Your task to perform on an android device: Open privacy settings Image 0: 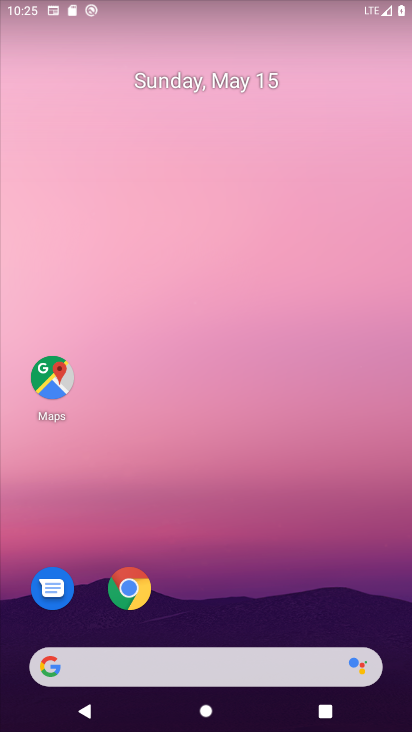
Step 0: drag from (283, 582) to (272, 285)
Your task to perform on an android device: Open privacy settings Image 1: 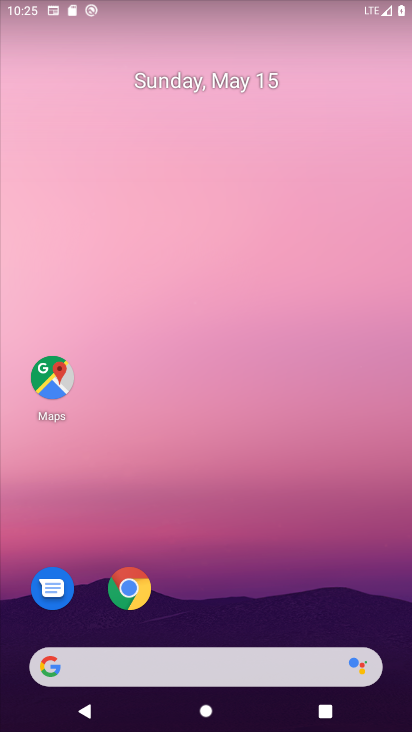
Step 1: drag from (243, 554) to (232, 158)
Your task to perform on an android device: Open privacy settings Image 2: 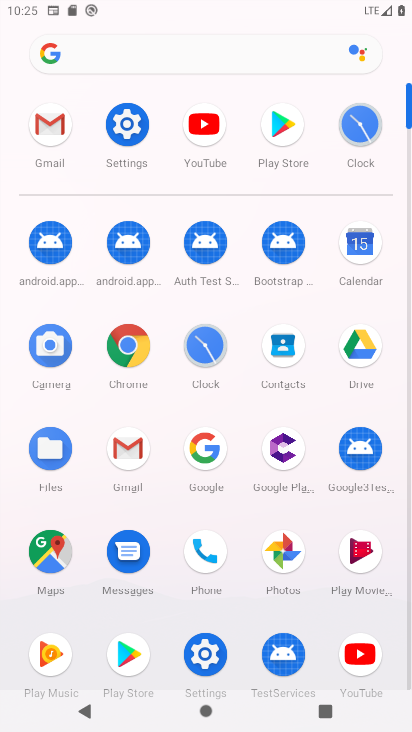
Step 2: click (130, 124)
Your task to perform on an android device: Open privacy settings Image 3: 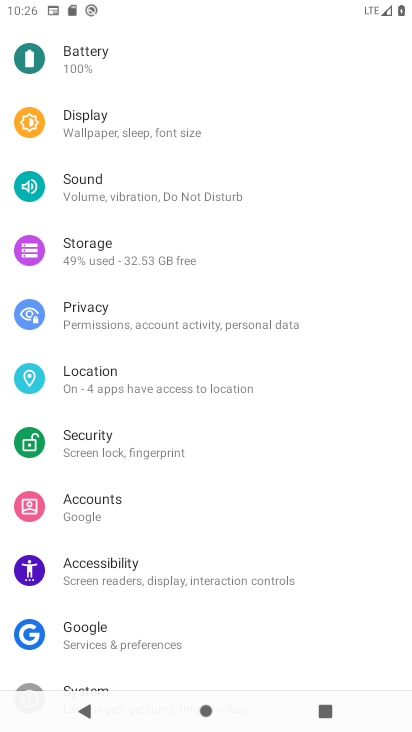
Step 3: click (116, 312)
Your task to perform on an android device: Open privacy settings Image 4: 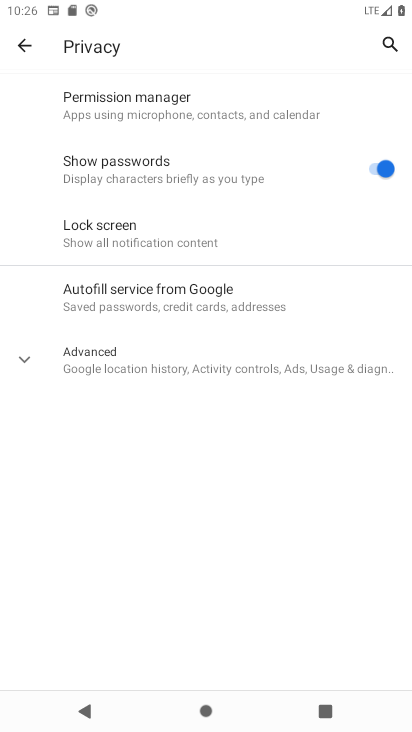
Step 4: task complete